Your task to perform on an android device: Open Yahoo.com Image 0: 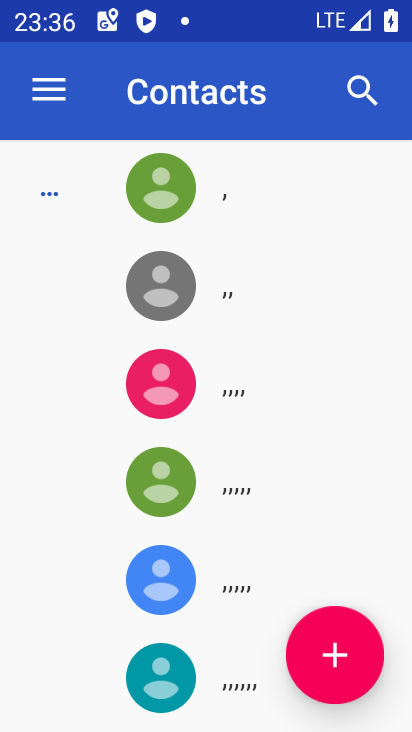
Step 0: press home button
Your task to perform on an android device: Open Yahoo.com Image 1: 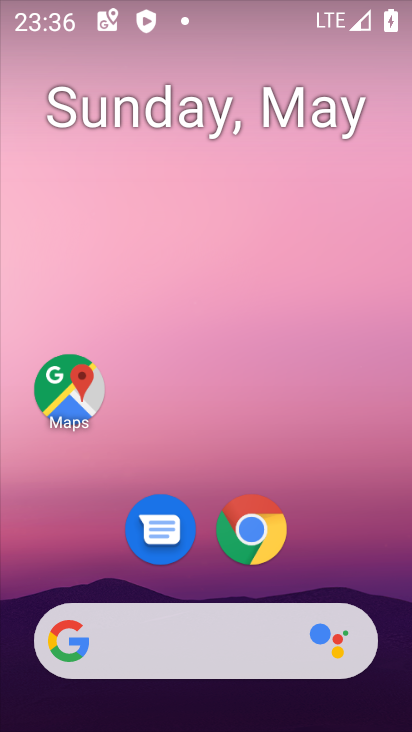
Step 1: drag from (326, 566) to (336, 189)
Your task to perform on an android device: Open Yahoo.com Image 2: 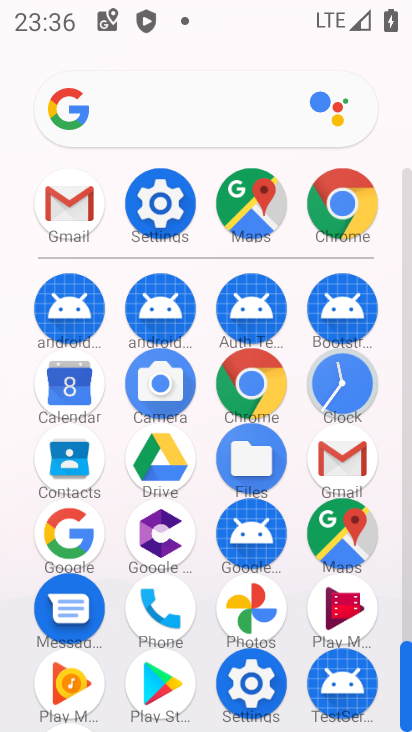
Step 2: drag from (199, 639) to (214, 375)
Your task to perform on an android device: Open Yahoo.com Image 3: 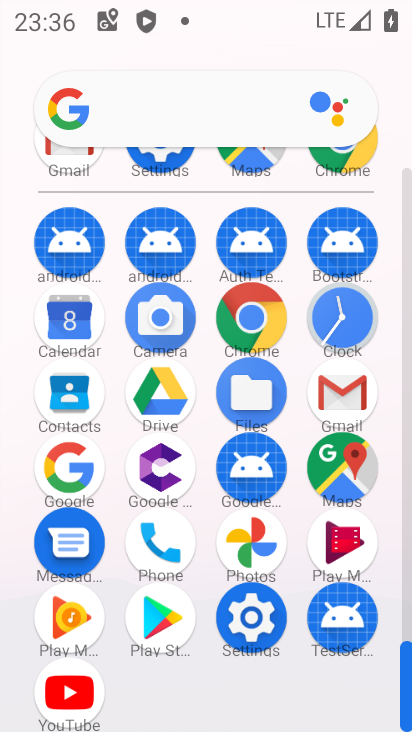
Step 3: click (254, 305)
Your task to perform on an android device: Open Yahoo.com Image 4: 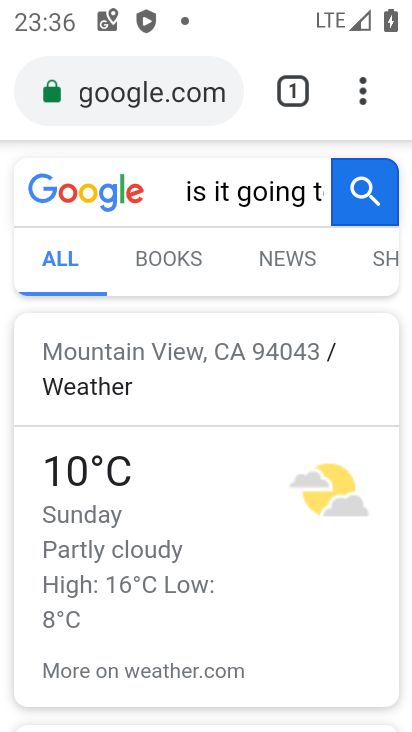
Step 4: click (157, 101)
Your task to perform on an android device: Open Yahoo.com Image 5: 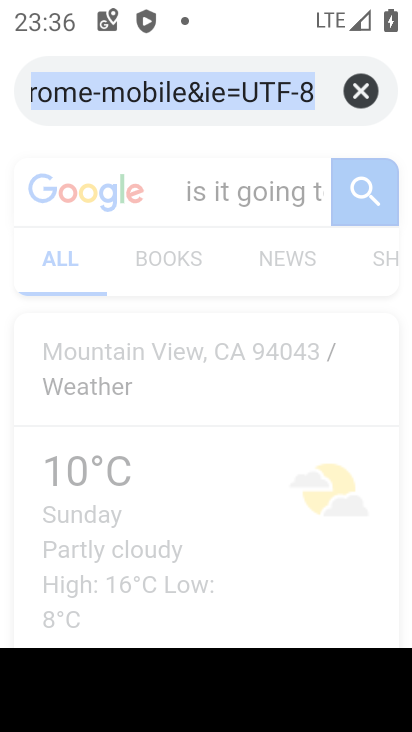
Step 5: click (363, 102)
Your task to perform on an android device: Open Yahoo.com Image 6: 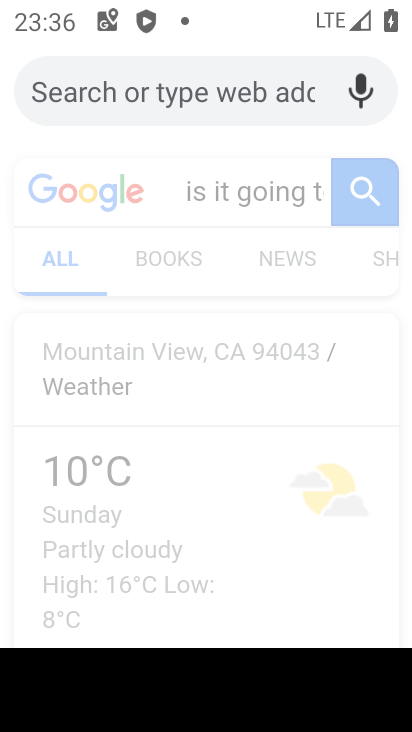
Step 6: type "yahoo.com"
Your task to perform on an android device: Open Yahoo.com Image 7: 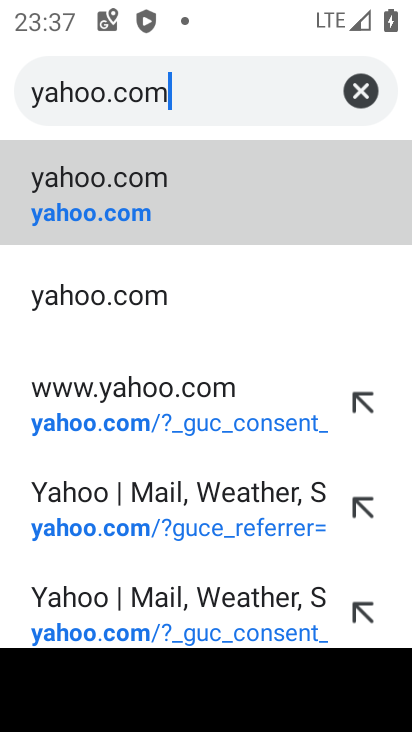
Step 7: click (153, 205)
Your task to perform on an android device: Open Yahoo.com Image 8: 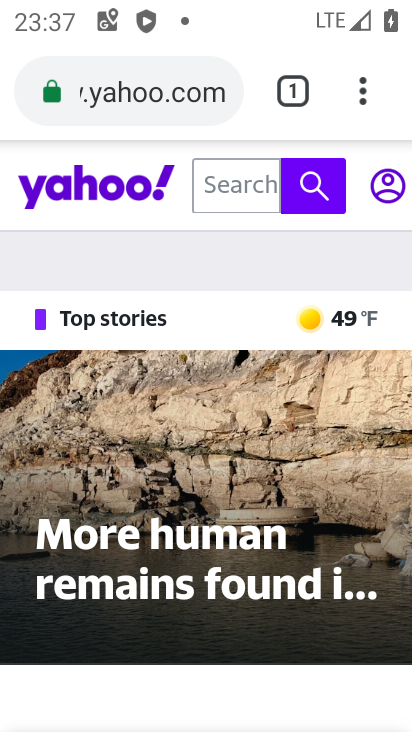
Step 8: task complete